Your task to perform on an android device: Go to Android settings Image 0: 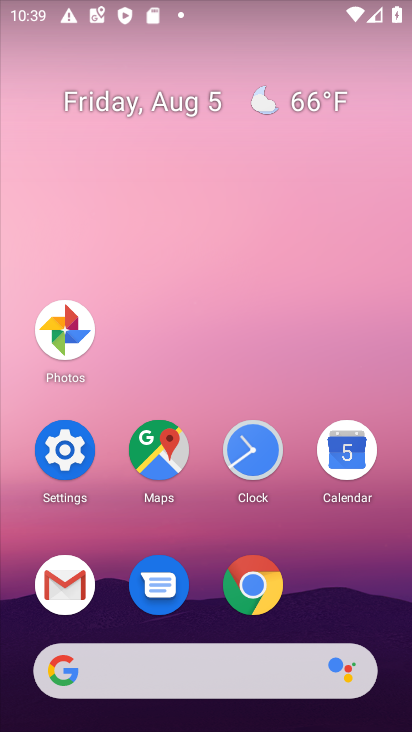
Step 0: click (63, 447)
Your task to perform on an android device: Go to Android settings Image 1: 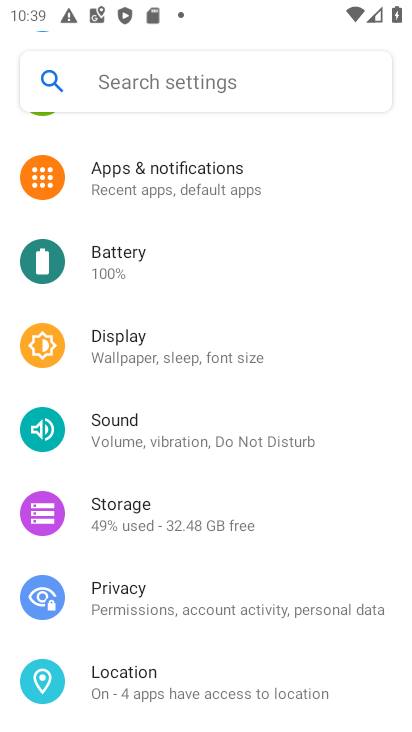
Step 1: drag from (224, 263) to (262, 623)
Your task to perform on an android device: Go to Android settings Image 2: 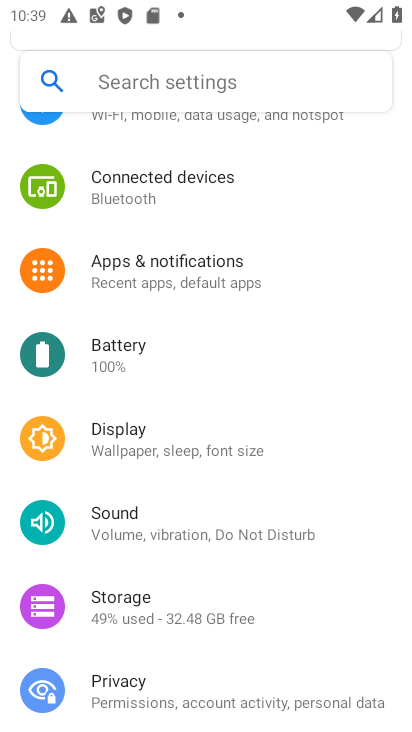
Step 2: drag from (250, 591) to (233, 151)
Your task to perform on an android device: Go to Android settings Image 3: 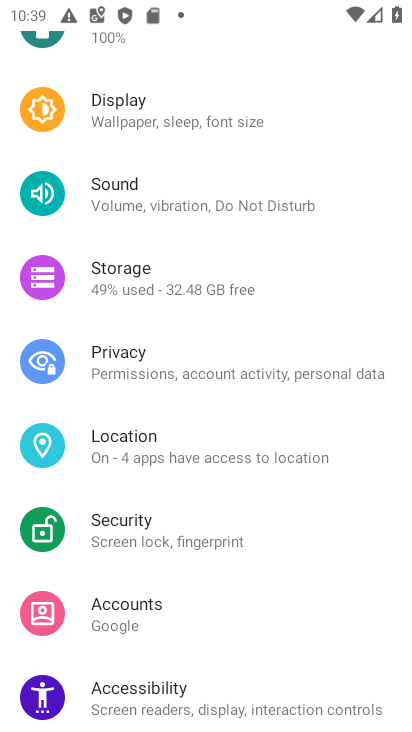
Step 3: drag from (275, 639) to (220, 238)
Your task to perform on an android device: Go to Android settings Image 4: 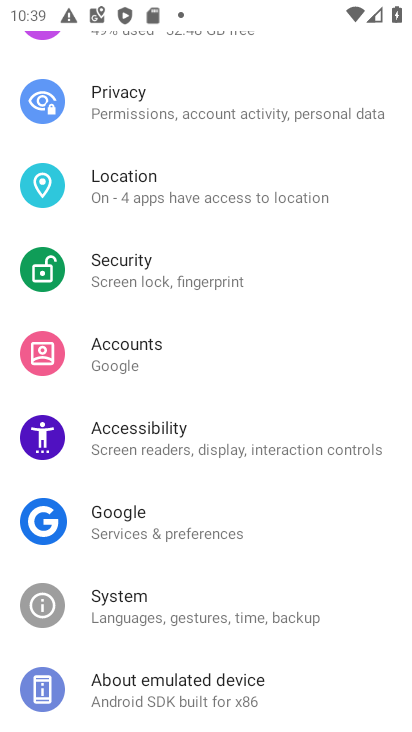
Step 4: click (159, 675)
Your task to perform on an android device: Go to Android settings Image 5: 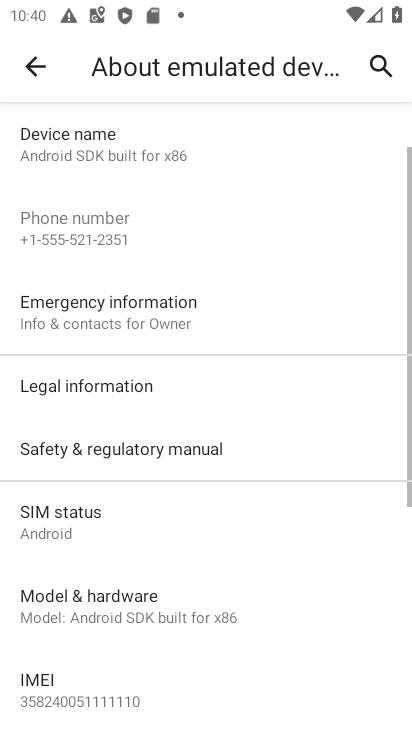
Step 5: task complete